Your task to perform on an android device: Turn on the flashlight Image 0: 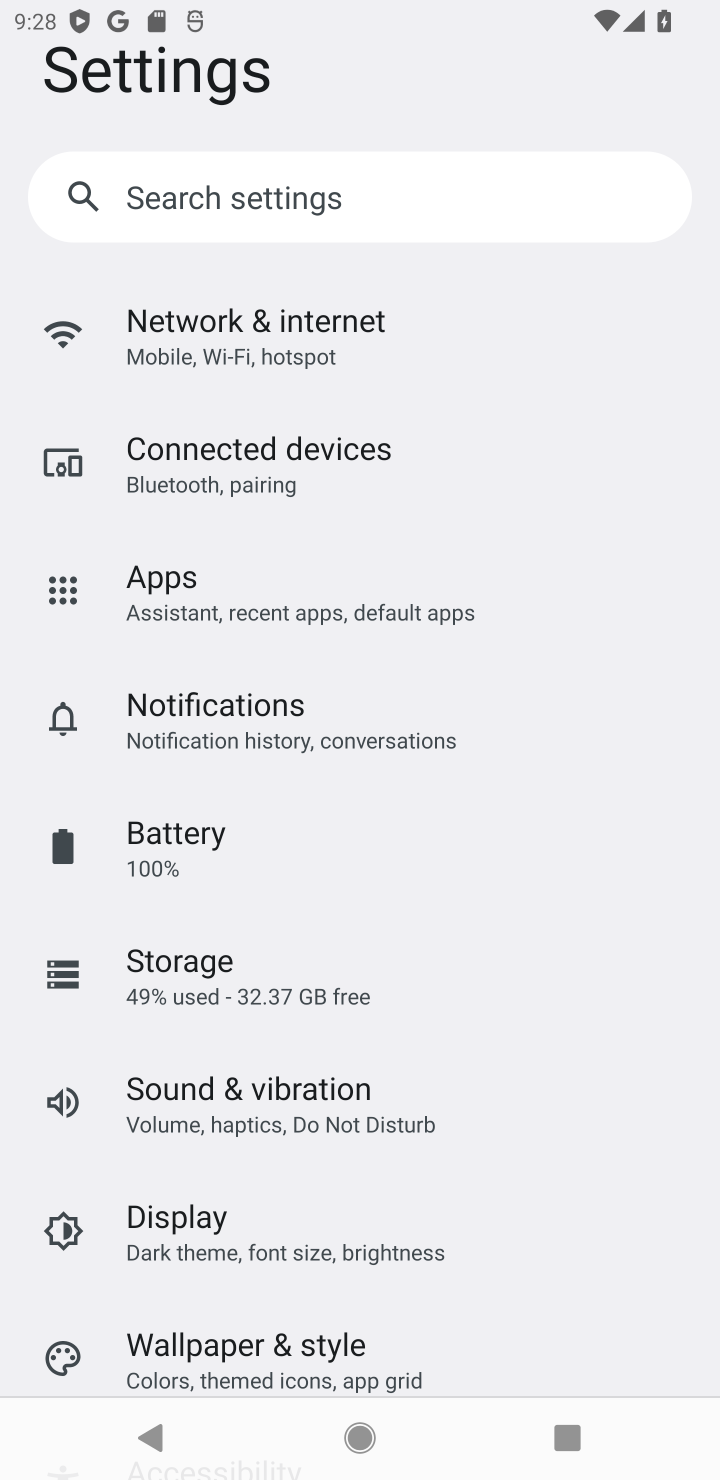
Step 0: drag from (228, 10) to (199, 806)
Your task to perform on an android device: Turn on the flashlight Image 1: 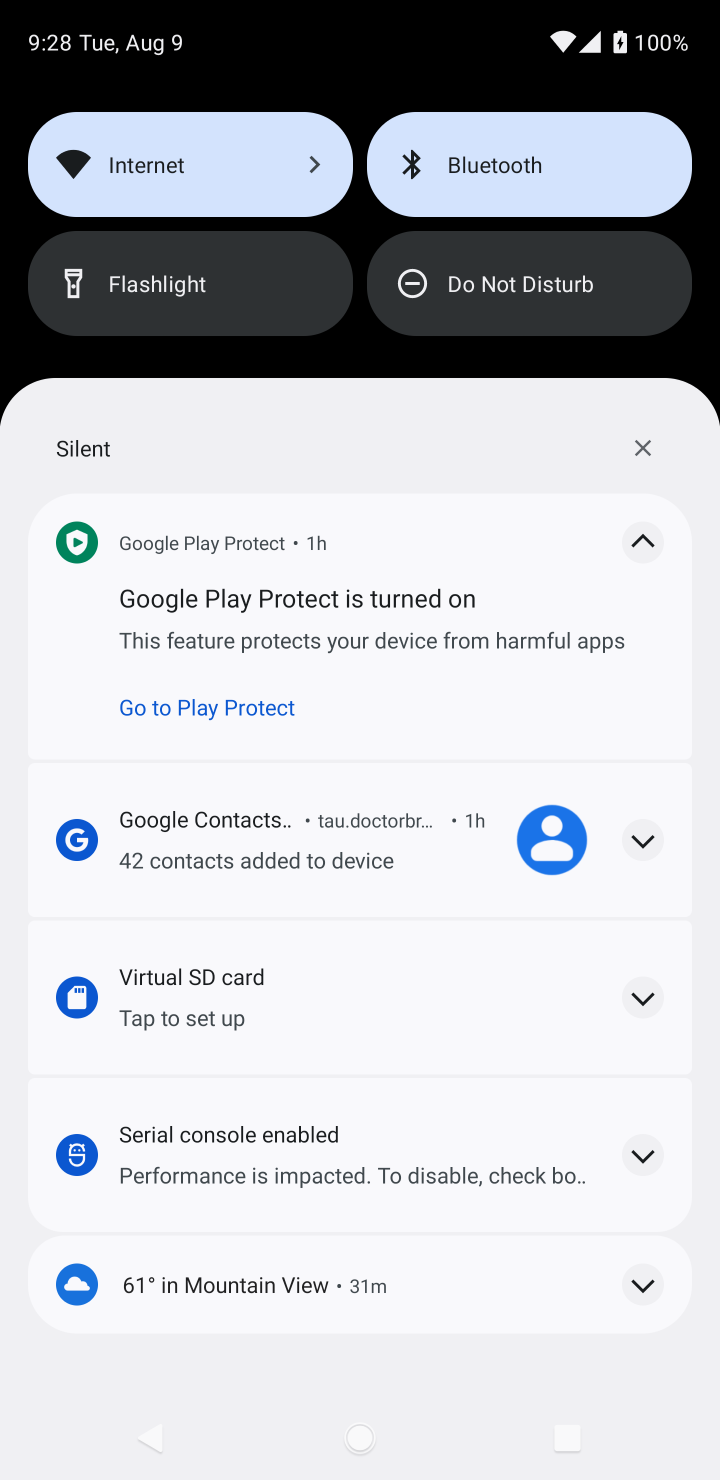
Step 1: click (183, 269)
Your task to perform on an android device: Turn on the flashlight Image 2: 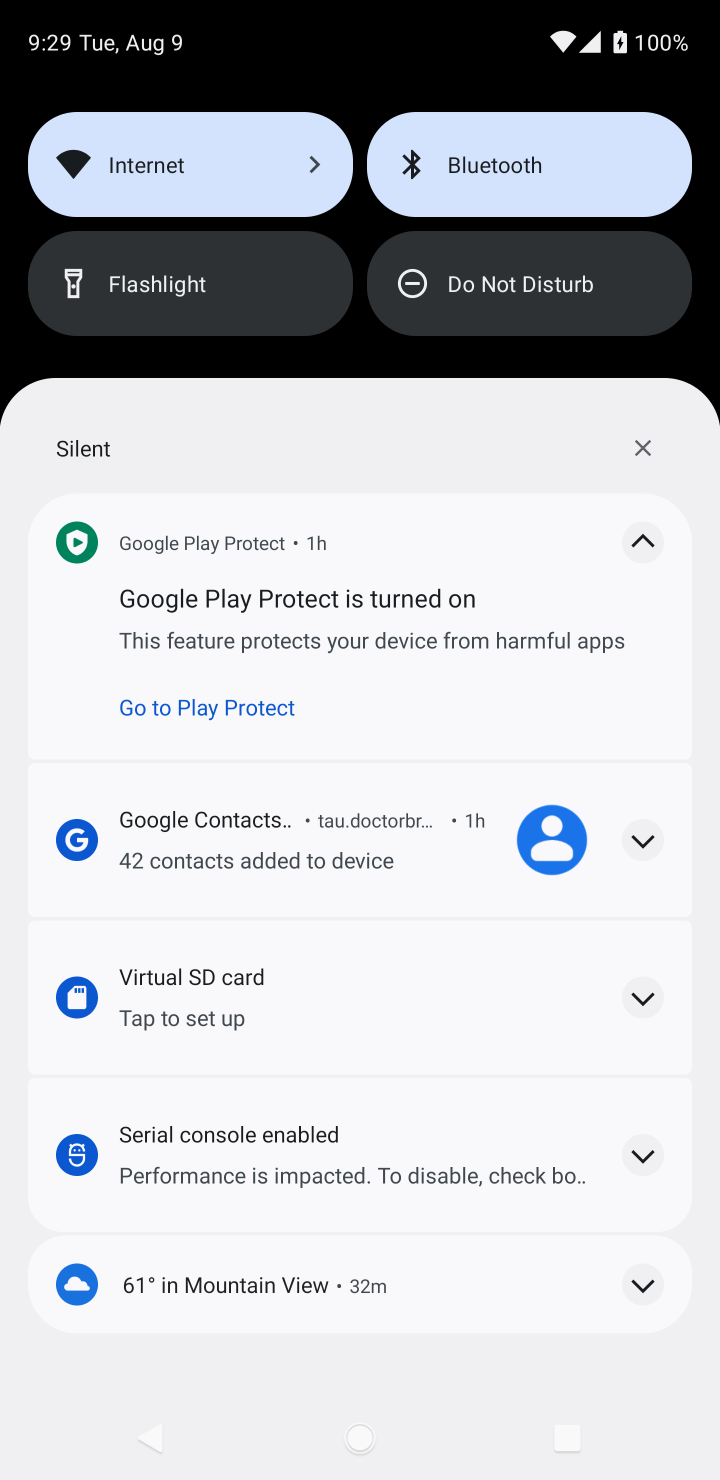
Step 2: click (187, 279)
Your task to perform on an android device: Turn on the flashlight Image 3: 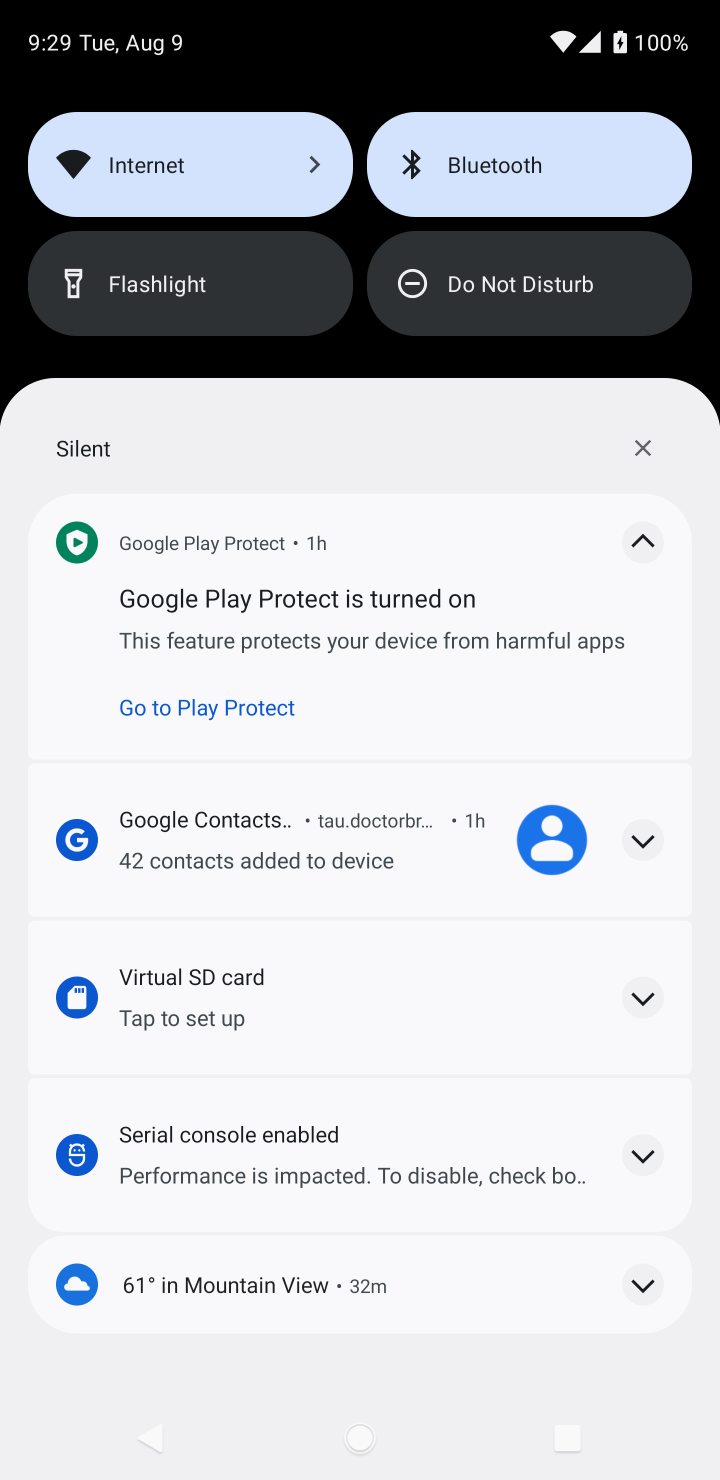
Step 3: click (187, 279)
Your task to perform on an android device: Turn on the flashlight Image 4: 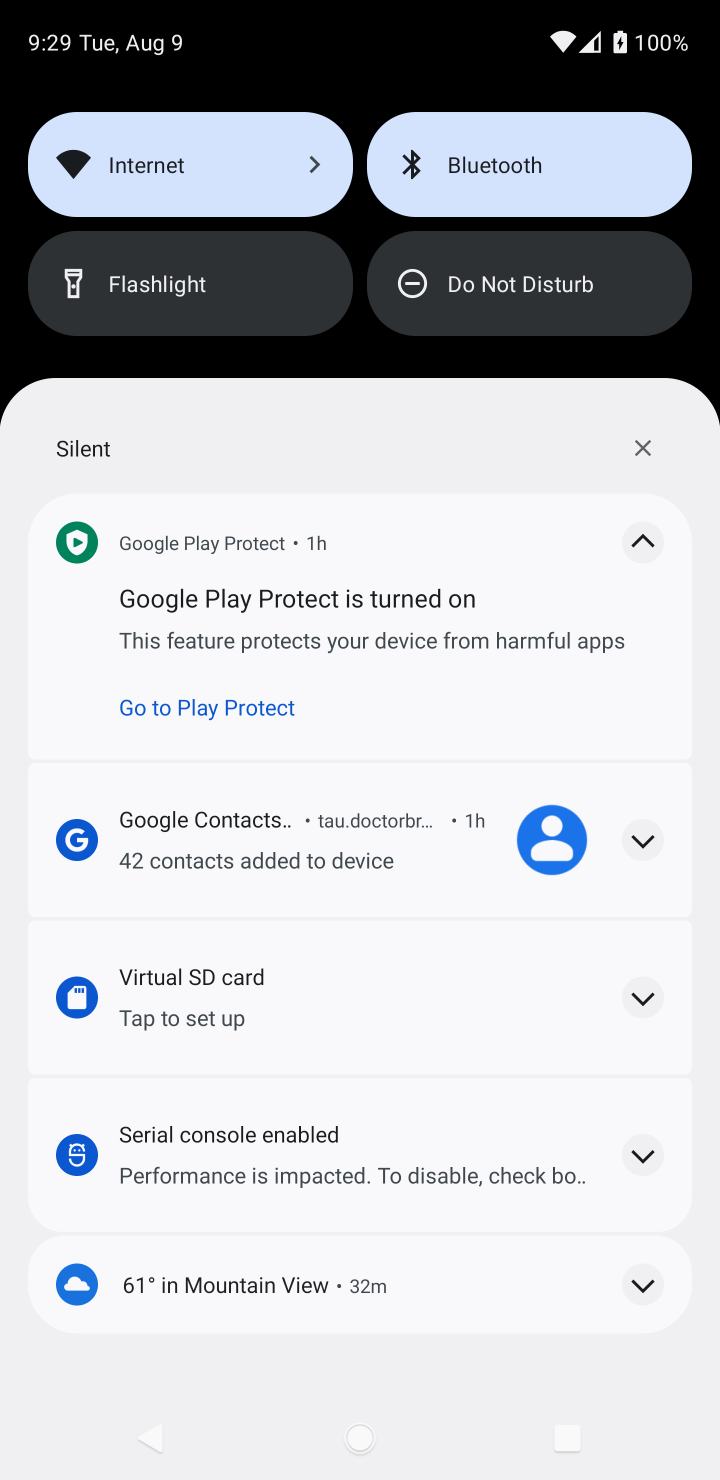
Step 4: click (159, 280)
Your task to perform on an android device: Turn on the flashlight Image 5: 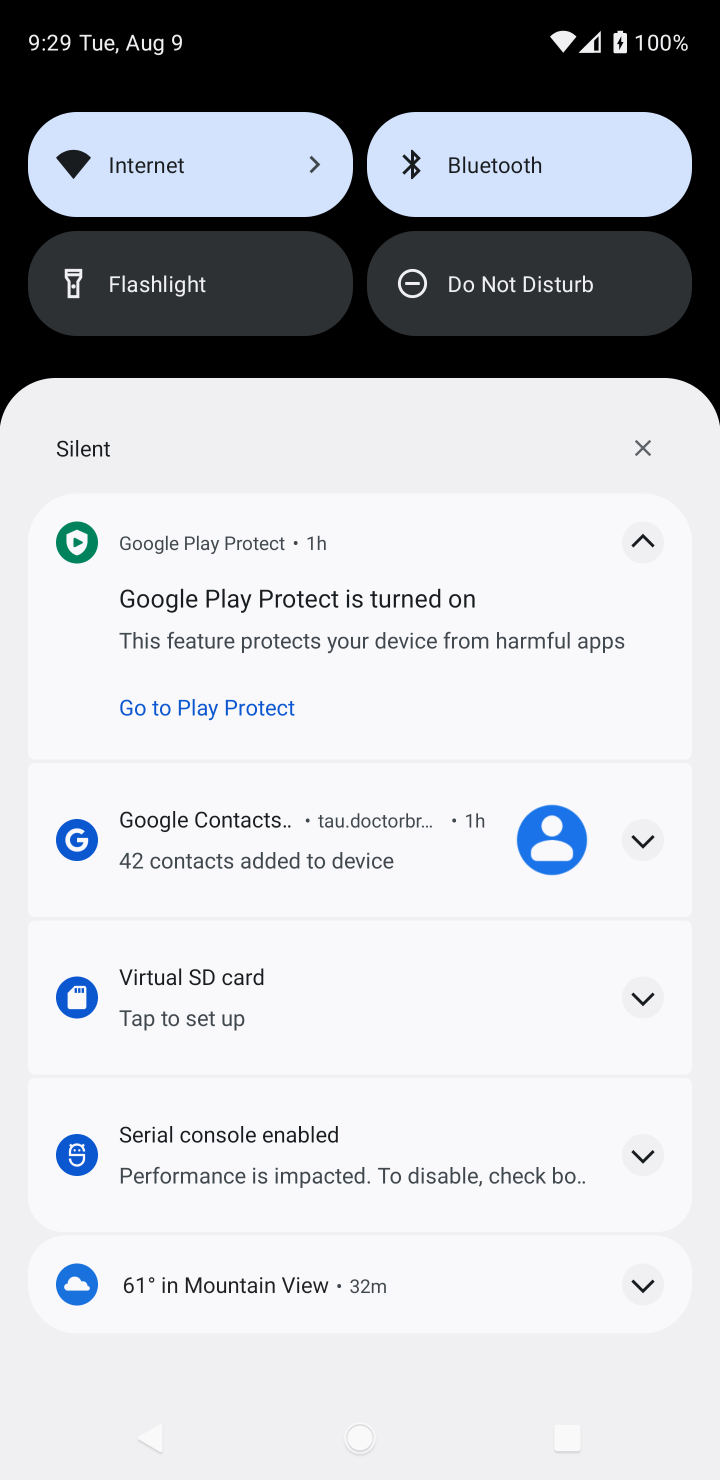
Step 5: task complete